Your task to perform on an android device: turn on wifi Image 0: 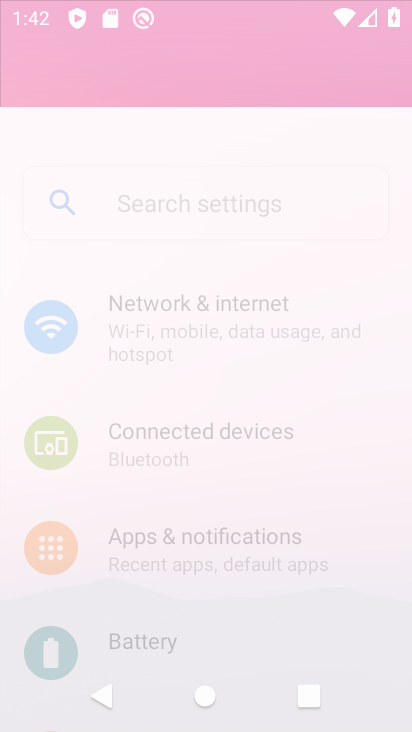
Step 0: drag from (338, 536) to (380, 110)
Your task to perform on an android device: turn on wifi Image 1: 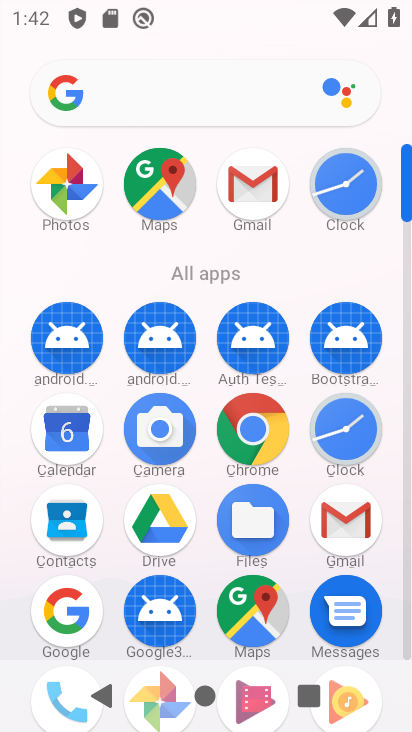
Step 1: drag from (189, 5) to (125, 400)
Your task to perform on an android device: turn on wifi Image 2: 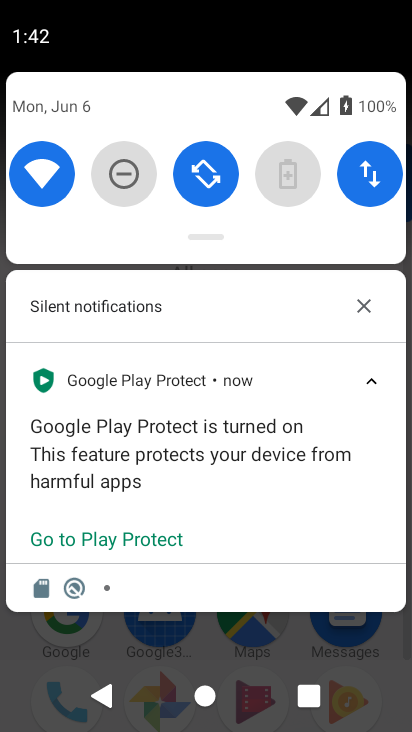
Step 2: click (28, 170)
Your task to perform on an android device: turn on wifi Image 3: 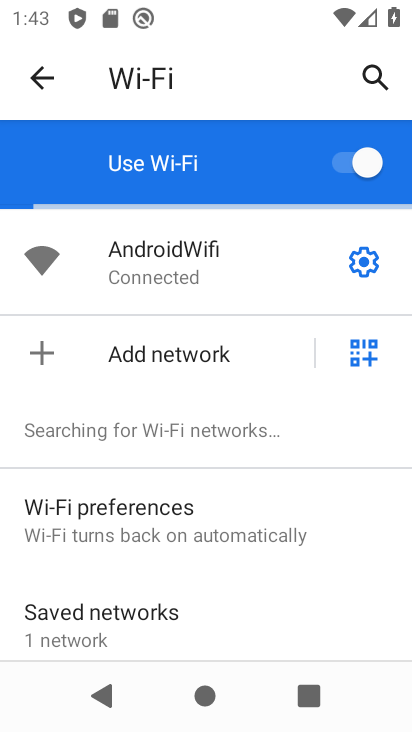
Step 3: task complete